Your task to perform on an android device: Search for vegetarian restaurants on Maps Image 0: 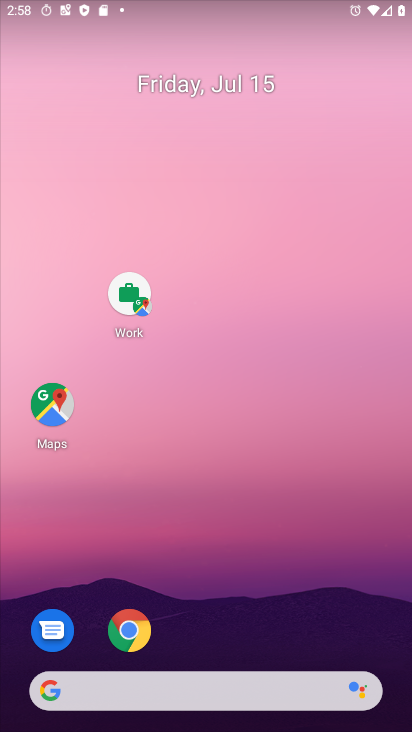
Step 0: click (48, 396)
Your task to perform on an android device: Search for vegetarian restaurants on Maps Image 1: 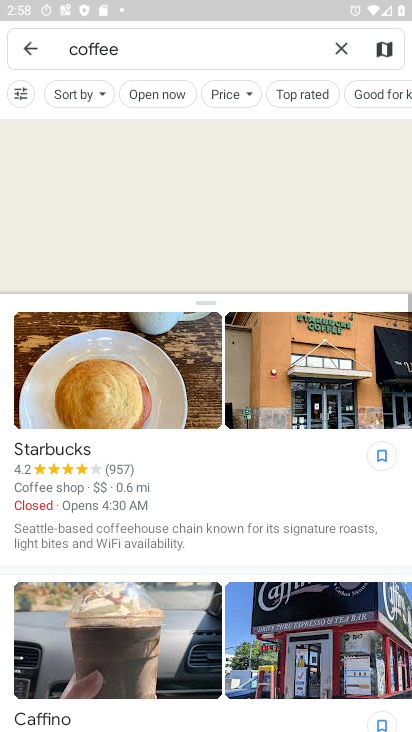
Step 1: click (335, 55)
Your task to perform on an android device: Search for vegetarian restaurants on Maps Image 2: 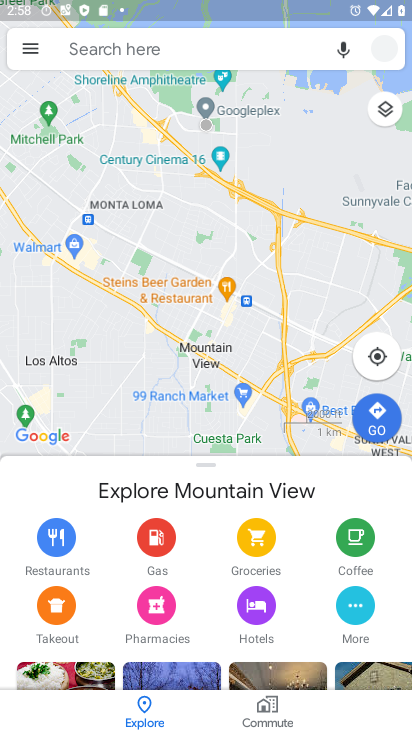
Step 2: click (211, 55)
Your task to perform on an android device: Search for vegetarian restaurants on Maps Image 3: 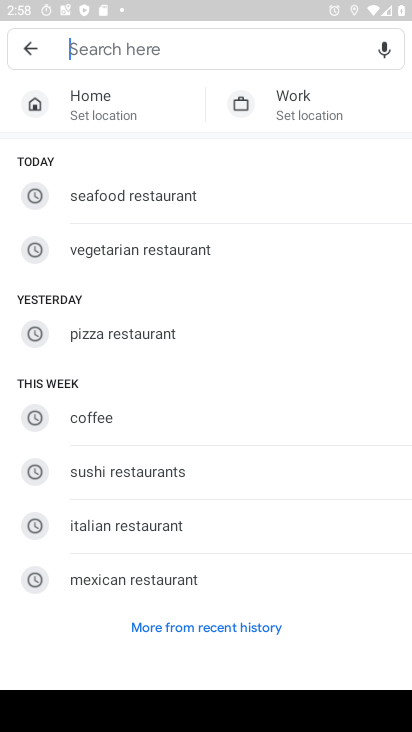
Step 3: click (177, 258)
Your task to perform on an android device: Search for vegetarian restaurants on Maps Image 4: 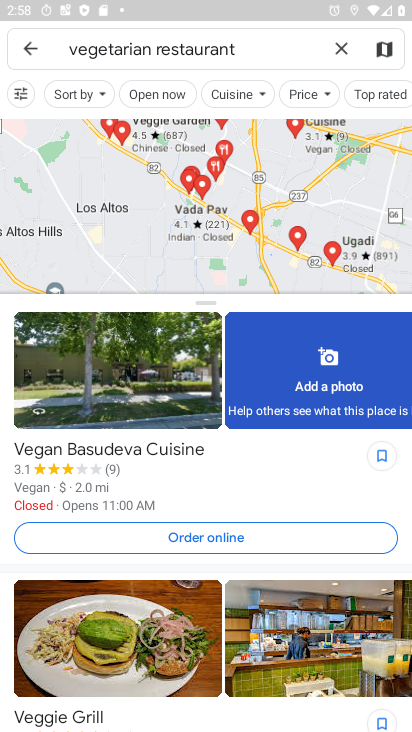
Step 4: task complete